Your task to perform on an android device: toggle sleep mode Image 0: 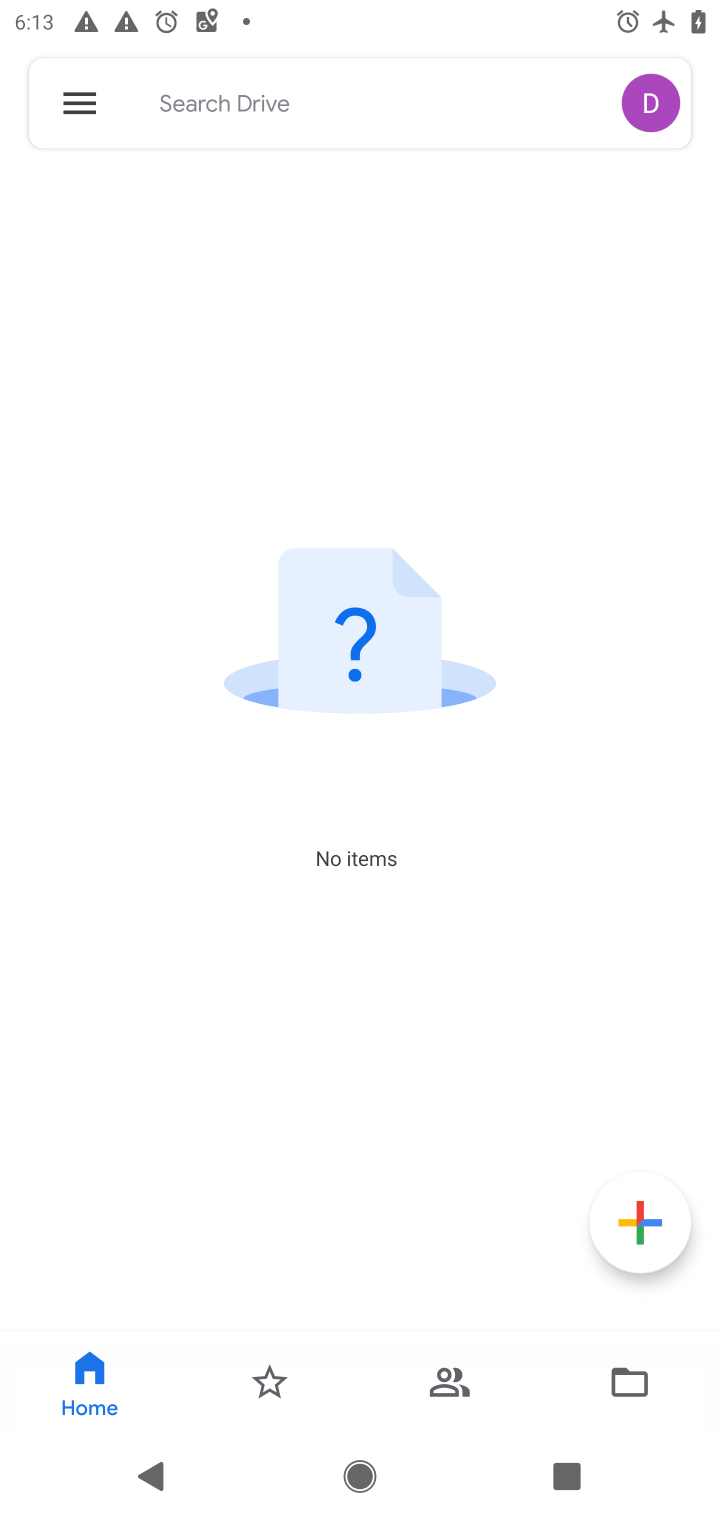
Step 0: press home button
Your task to perform on an android device: toggle sleep mode Image 1: 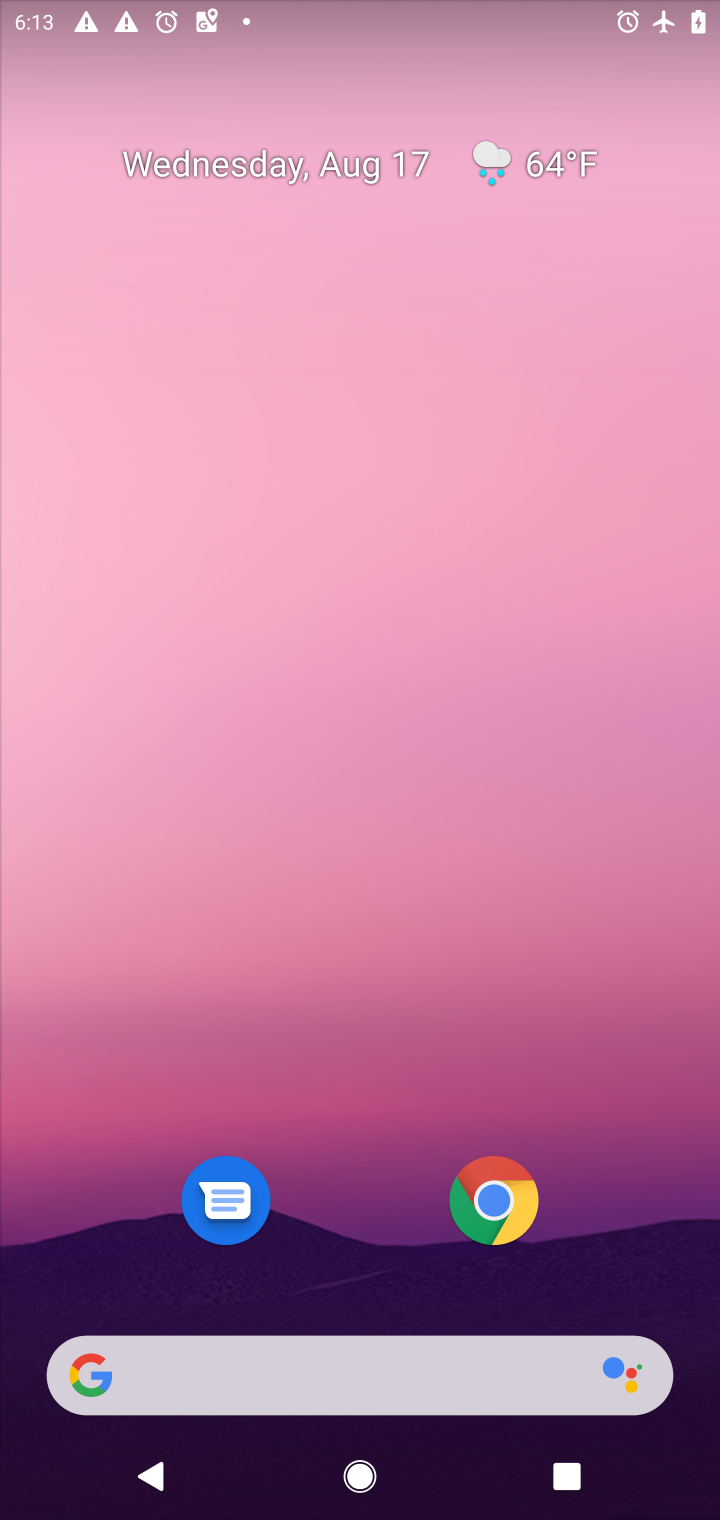
Step 1: drag from (351, 1302) to (391, 308)
Your task to perform on an android device: toggle sleep mode Image 2: 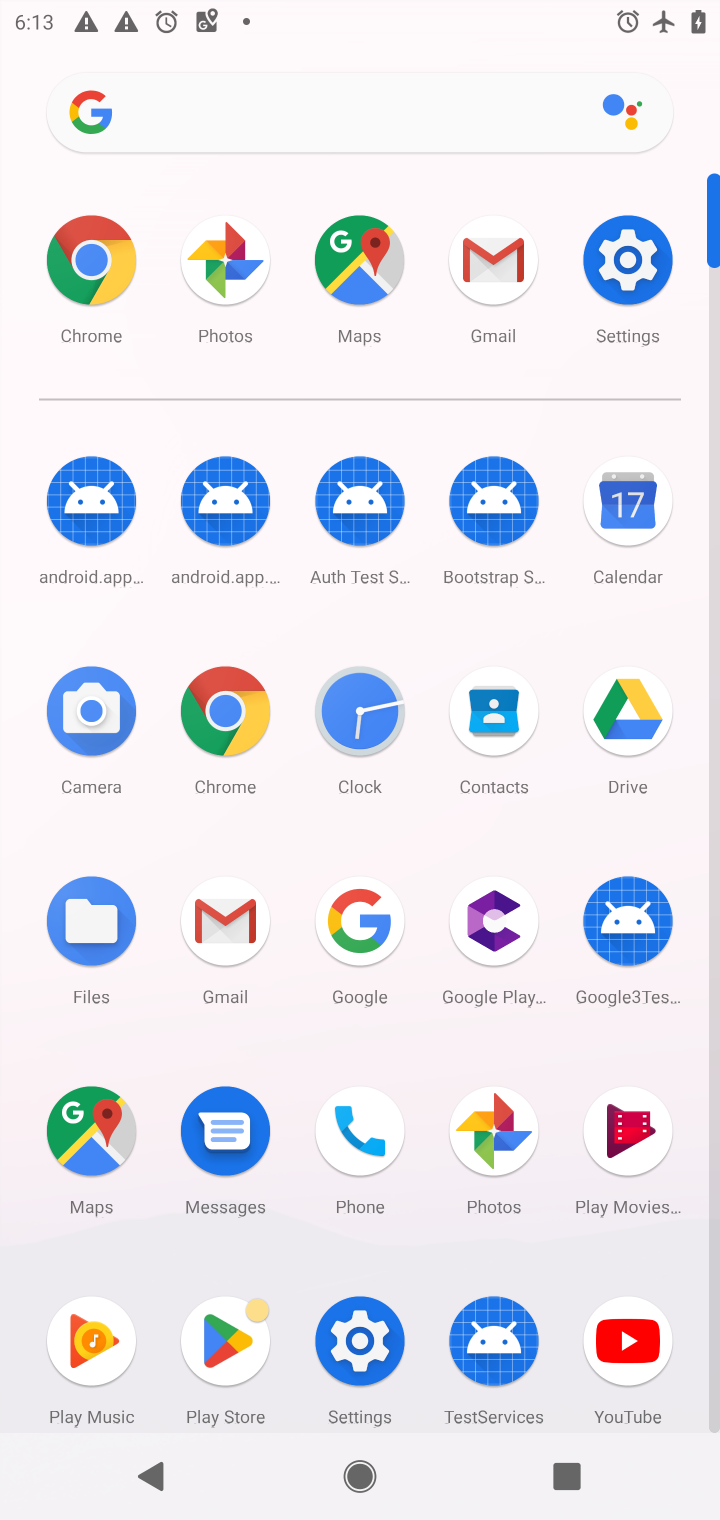
Step 2: click (623, 242)
Your task to perform on an android device: toggle sleep mode Image 3: 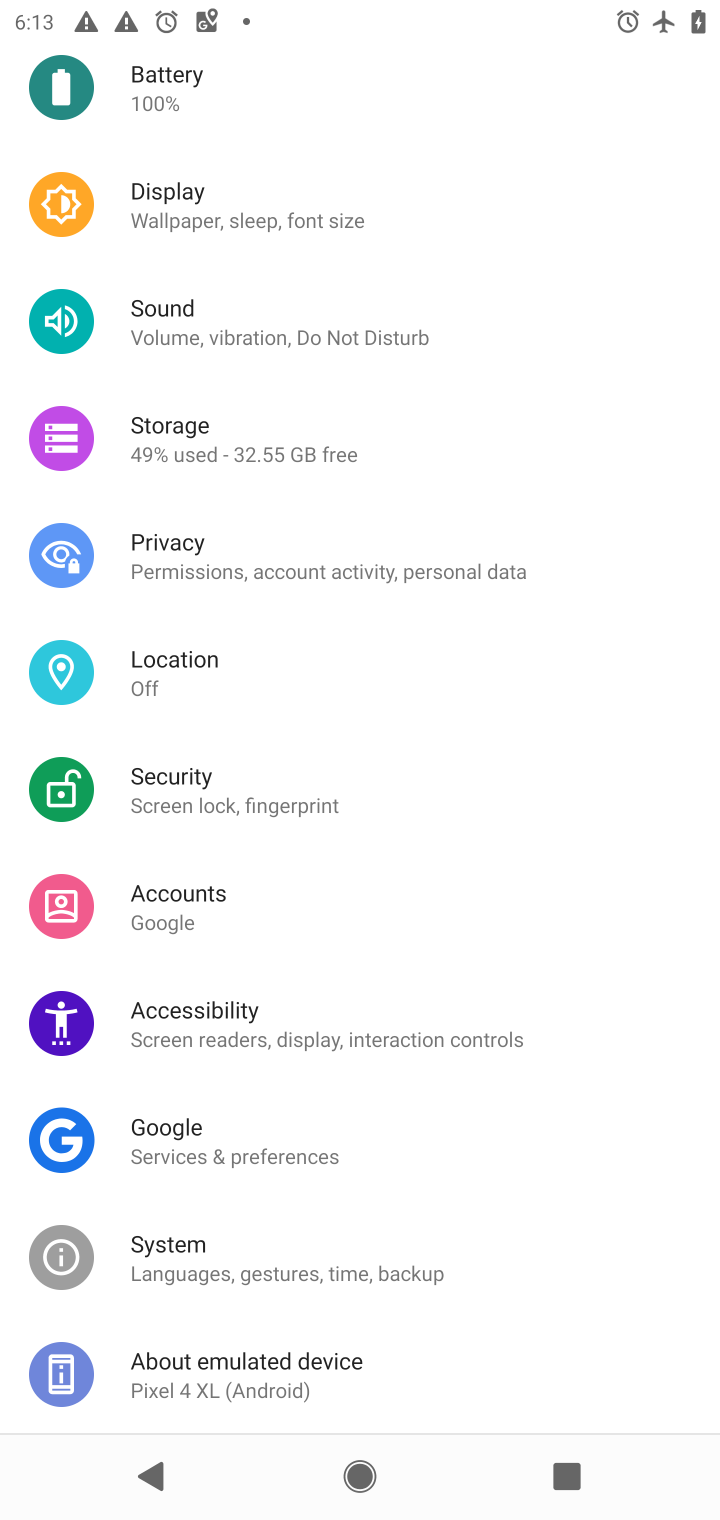
Step 3: drag from (181, 278) to (213, 1223)
Your task to perform on an android device: toggle sleep mode Image 4: 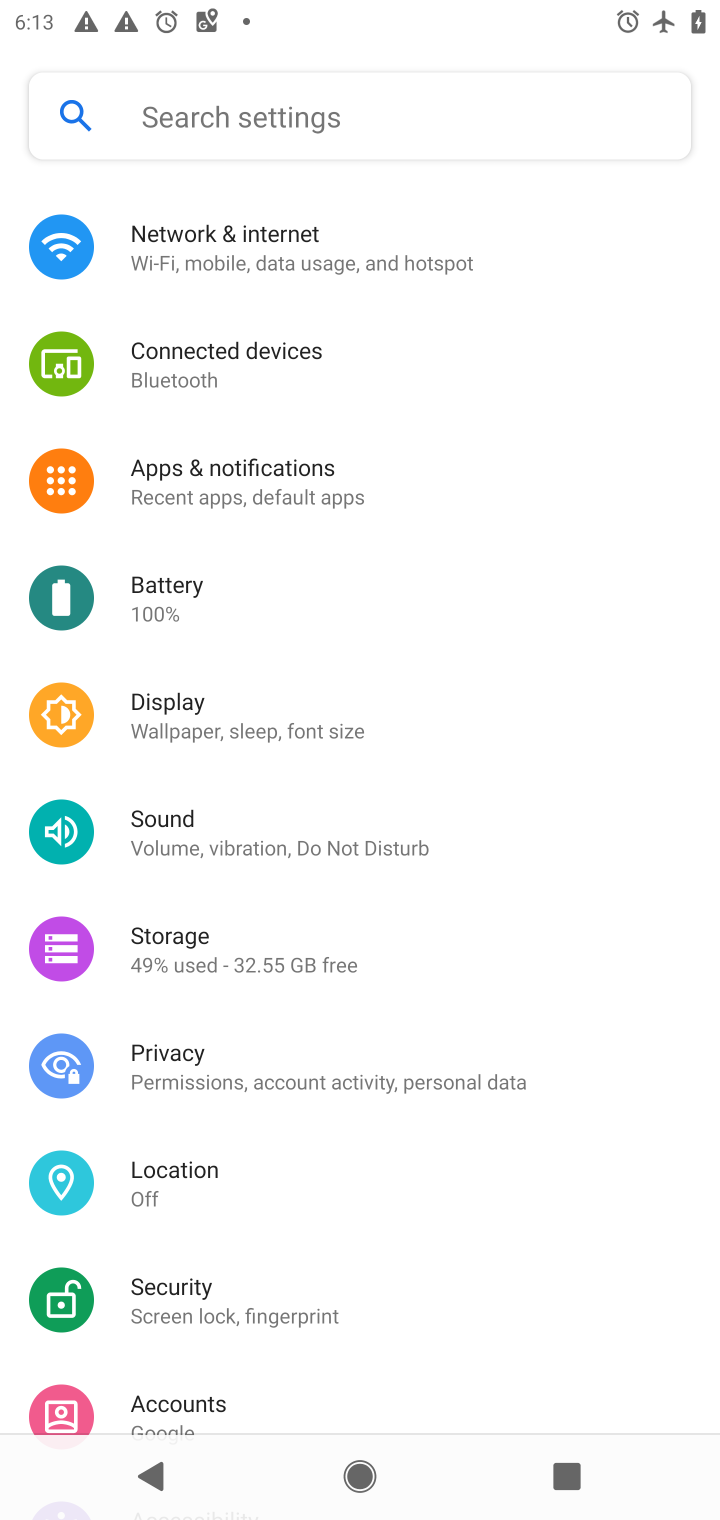
Step 4: drag from (270, 1248) to (272, 874)
Your task to perform on an android device: toggle sleep mode Image 5: 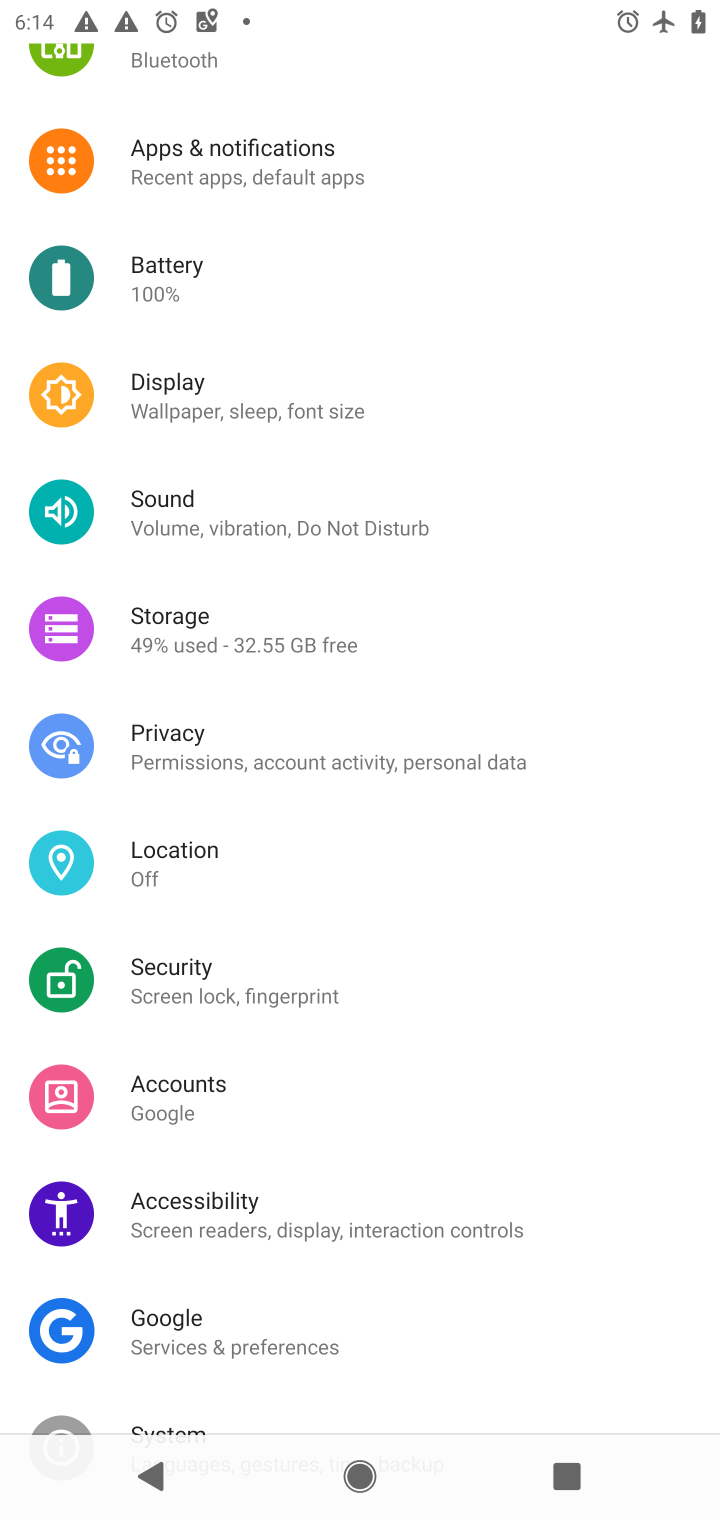
Step 5: click (222, 406)
Your task to perform on an android device: toggle sleep mode Image 6: 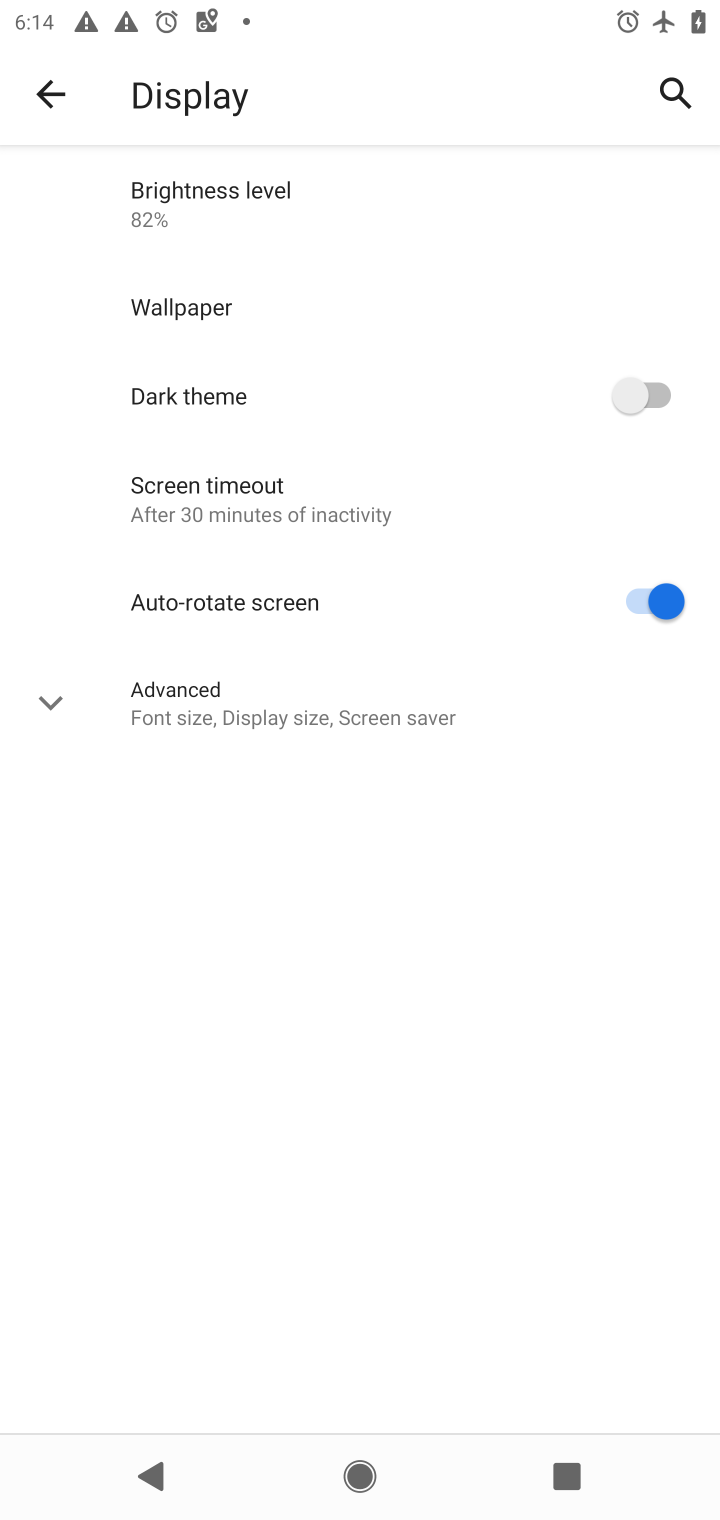
Step 6: task complete